Your task to perform on an android device: see tabs open on other devices in the chrome app Image 0: 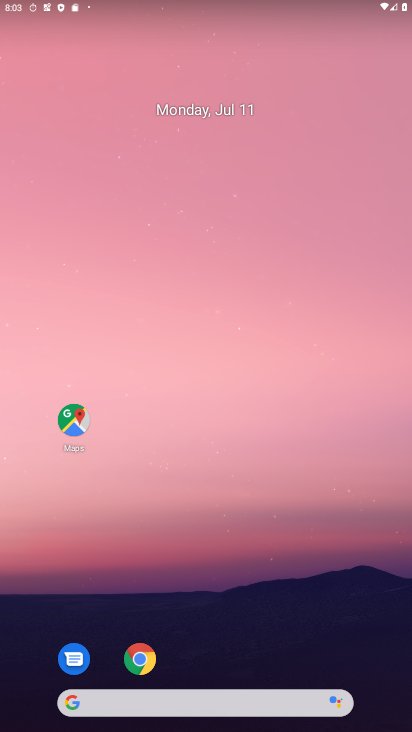
Step 0: drag from (281, 625) to (230, 58)
Your task to perform on an android device: see tabs open on other devices in the chrome app Image 1: 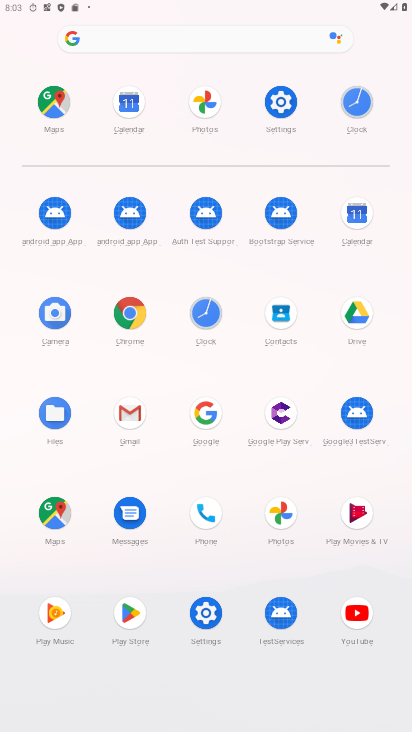
Step 1: click (117, 325)
Your task to perform on an android device: see tabs open on other devices in the chrome app Image 2: 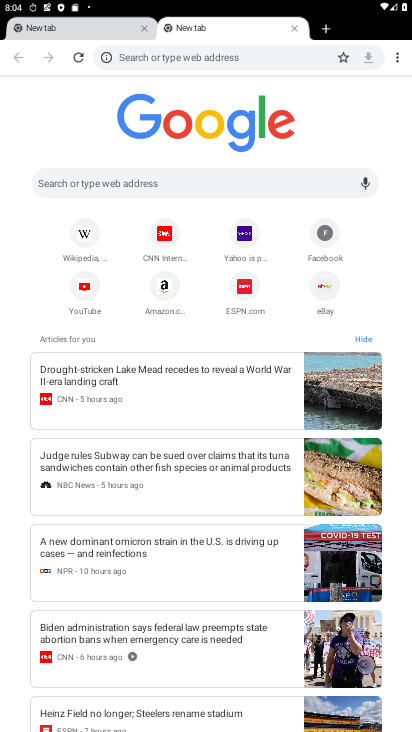
Step 2: drag from (402, 52) to (277, 137)
Your task to perform on an android device: see tabs open on other devices in the chrome app Image 3: 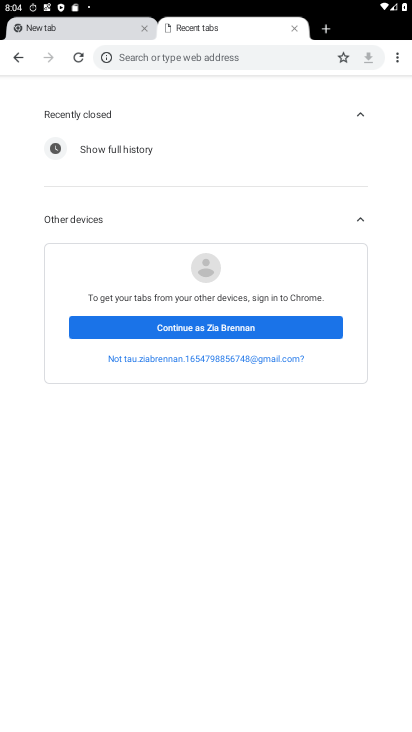
Step 3: click (228, 323)
Your task to perform on an android device: see tabs open on other devices in the chrome app Image 4: 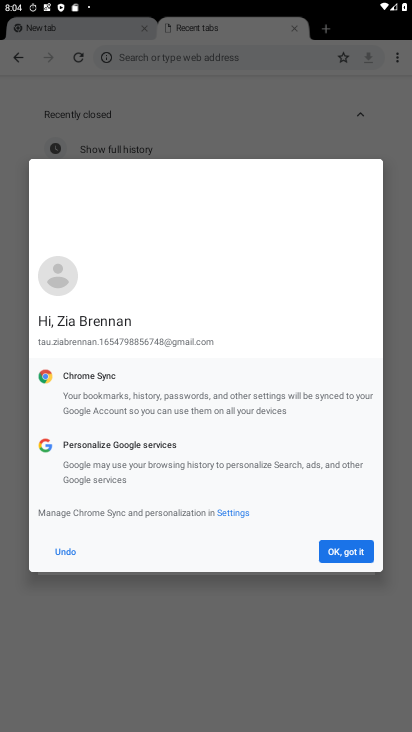
Step 4: click (356, 561)
Your task to perform on an android device: see tabs open on other devices in the chrome app Image 5: 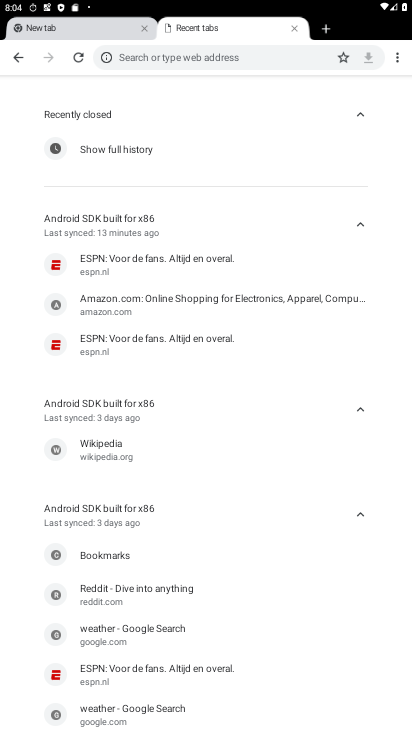
Step 5: task complete